Your task to perform on an android device: clear history in the chrome app Image 0: 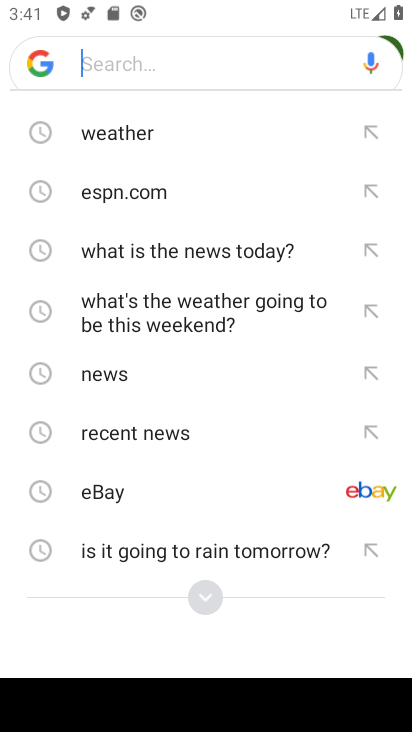
Step 0: press home button
Your task to perform on an android device: clear history in the chrome app Image 1: 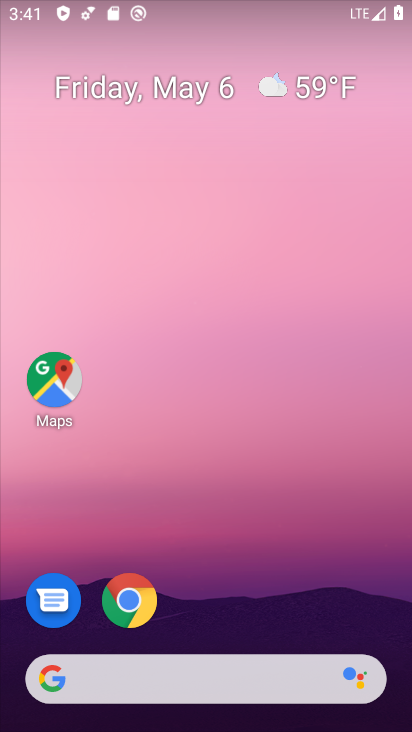
Step 1: click (131, 598)
Your task to perform on an android device: clear history in the chrome app Image 2: 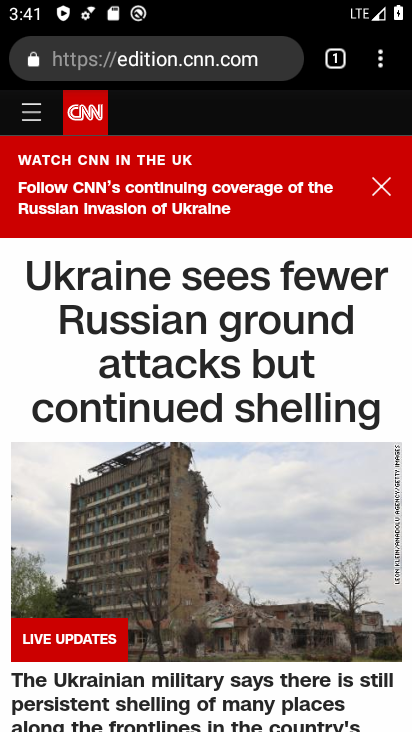
Step 2: click (380, 56)
Your task to perform on an android device: clear history in the chrome app Image 3: 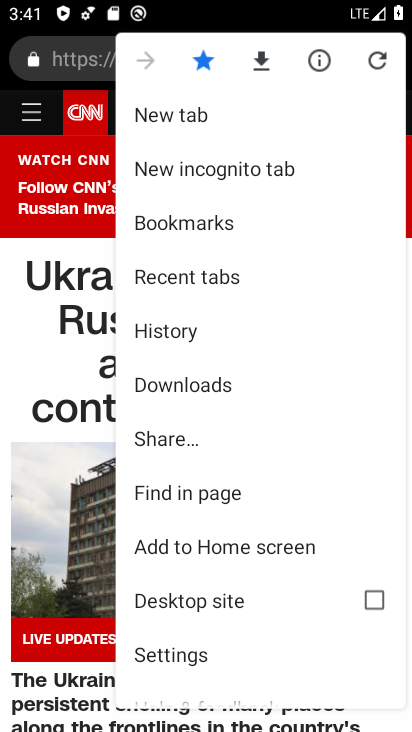
Step 3: click (197, 332)
Your task to perform on an android device: clear history in the chrome app Image 4: 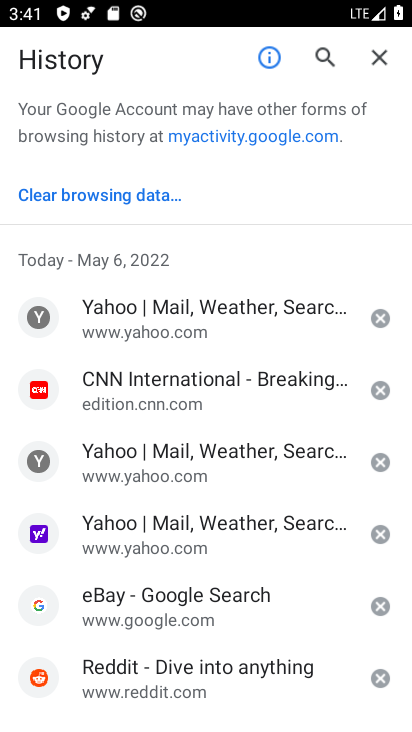
Step 4: click (105, 194)
Your task to perform on an android device: clear history in the chrome app Image 5: 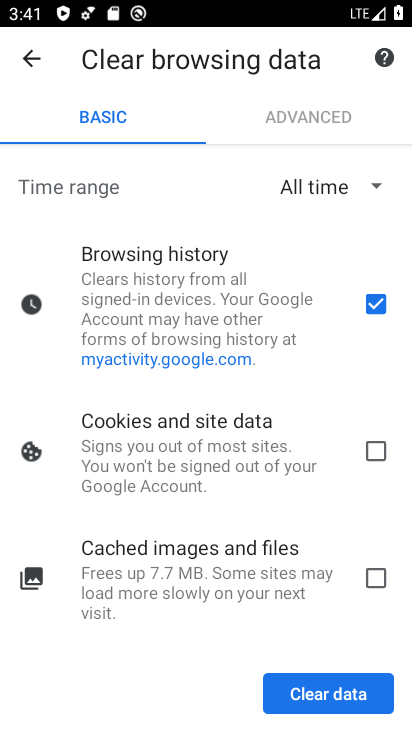
Step 5: click (353, 694)
Your task to perform on an android device: clear history in the chrome app Image 6: 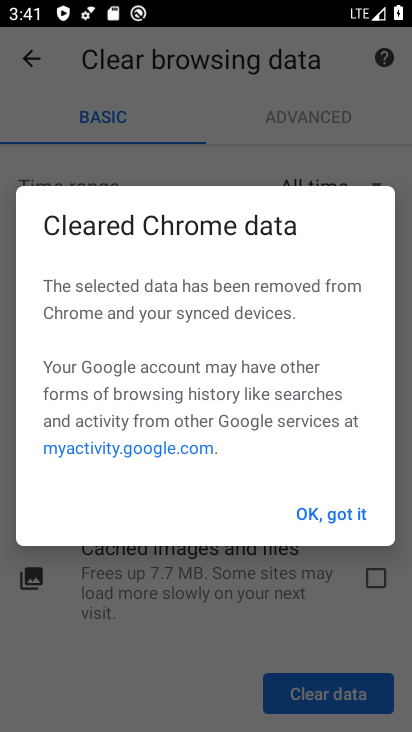
Step 6: click (340, 516)
Your task to perform on an android device: clear history in the chrome app Image 7: 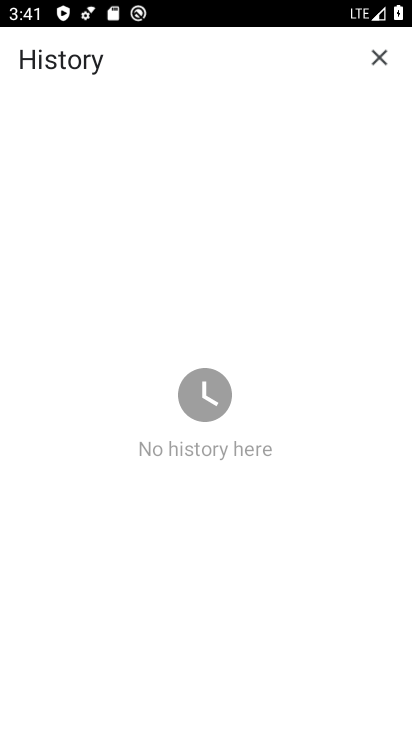
Step 7: task complete